Your task to perform on an android device: Open Youtube and go to the subscriptions tab Image 0: 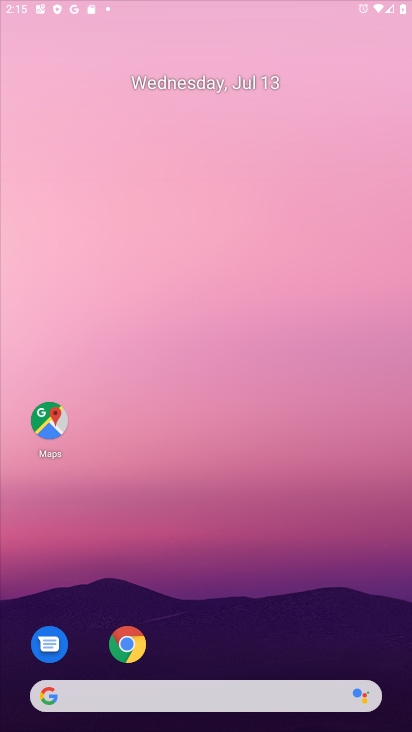
Step 0: drag from (201, 659) to (206, 205)
Your task to perform on an android device: Open Youtube and go to the subscriptions tab Image 1: 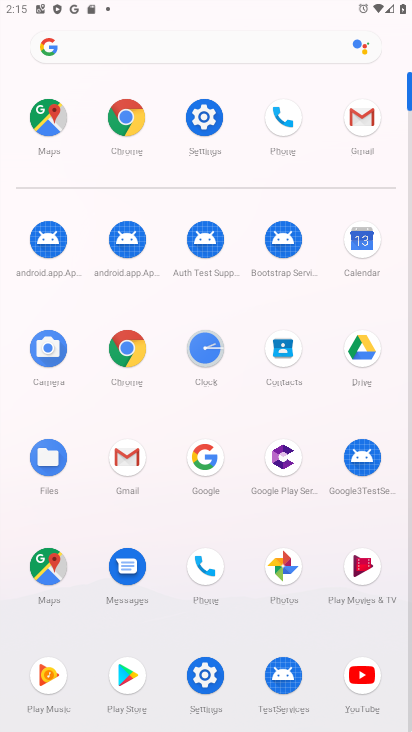
Step 1: click (357, 674)
Your task to perform on an android device: Open Youtube and go to the subscriptions tab Image 2: 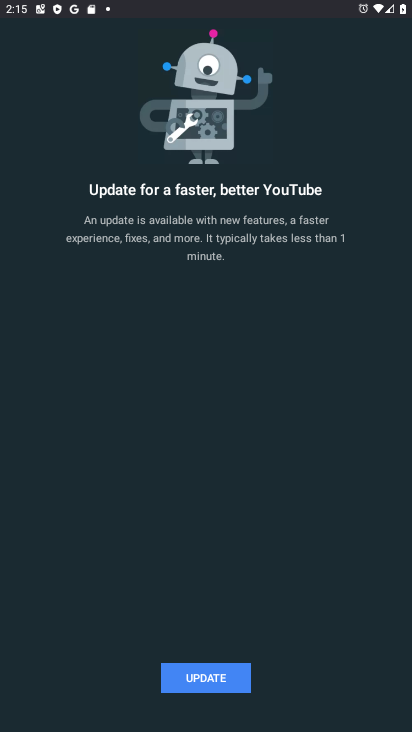
Step 2: click (209, 686)
Your task to perform on an android device: Open Youtube and go to the subscriptions tab Image 3: 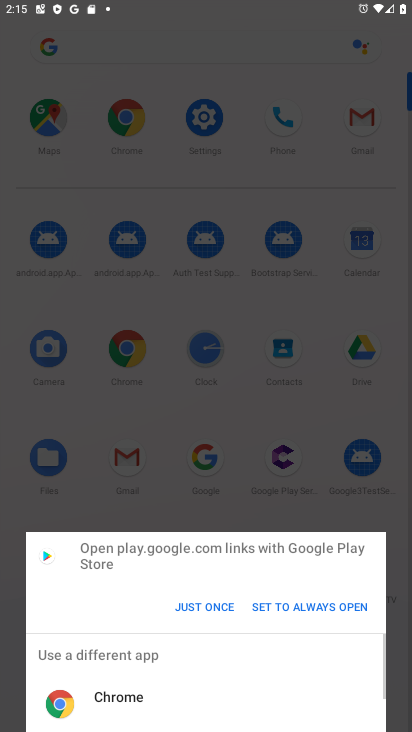
Step 3: click (178, 601)
Your task to perform on an android device: Open Youtube and go to the subscriptions tab Image 4: 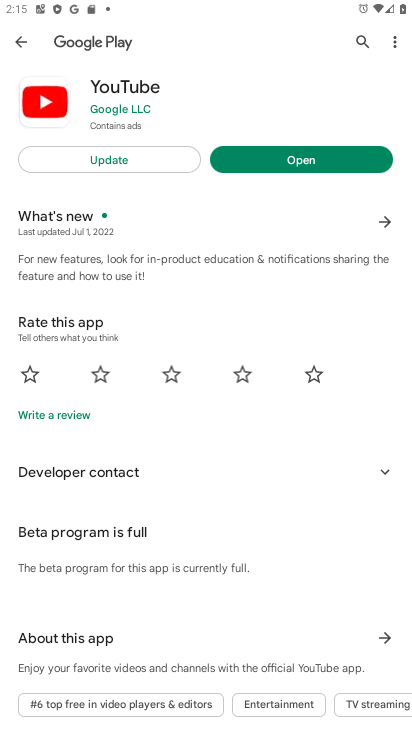
Step 4: click (137, 165)
Your task to perform on an android device: Open Youtube and go to the subscriptions tab Image 5: 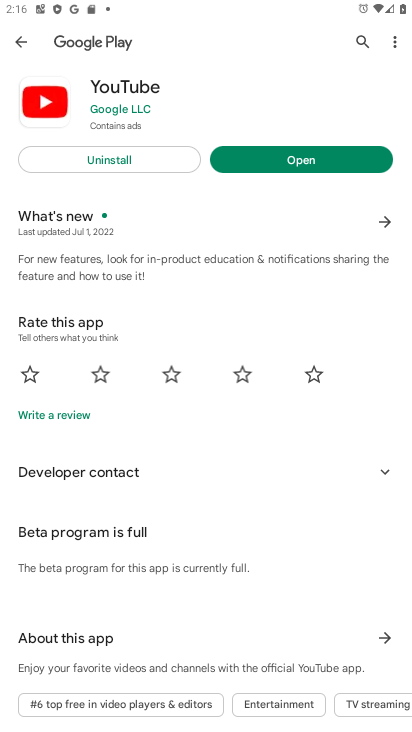
Step 5: click (256, 159)
Your task to perform on an android device: Open Youtube and go to the subscriptions tab Image 6: 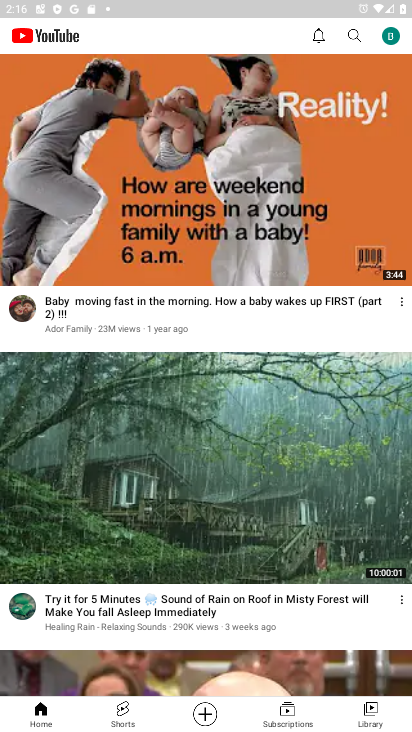
Step 6: click (293, 706)
Your task to perform on an android device: Open Youtube and go to the subscriptions tab Image 7: 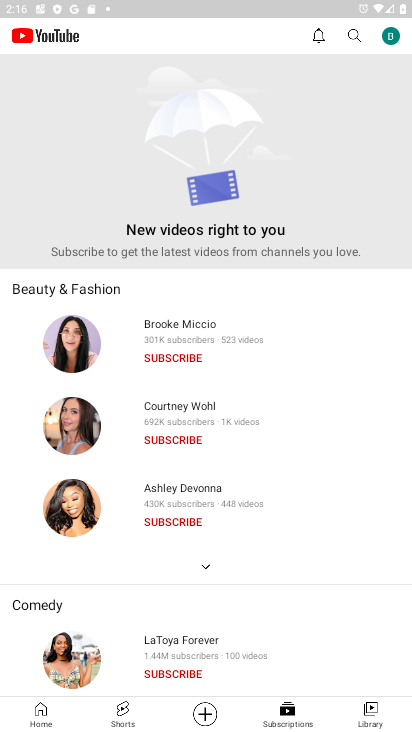
Step 7: task complete